Your task to perform on an android device: find which apps use the phone's location Image 0: 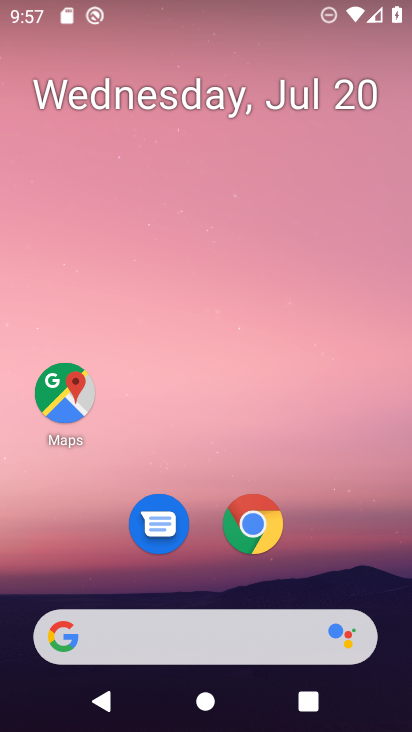
Step 0: drag from (207, 638) to (333, 59)
Your task to perform on an android device: find which apps use the phone's location Image 1: 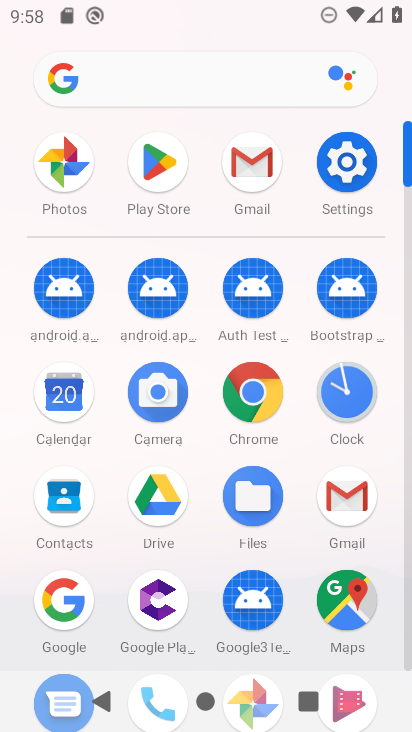
Step 1: click (331, 172)
Your task to perform on an android device: find which apps use the phone's location Image 2: 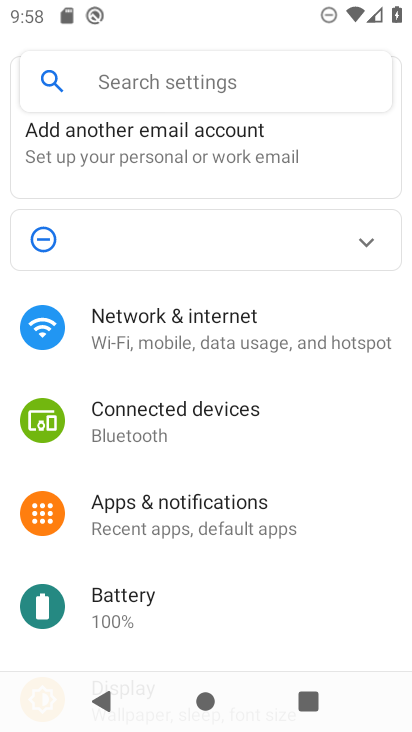
Step 2: drag from (259, 476) to (338, 154)
Your task to perform on an android device: find which apps use the phone's location Image 3: 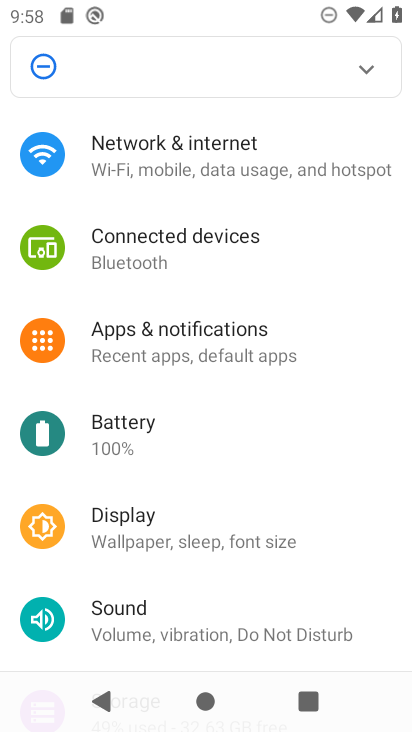
Step 3: drag from (268, 544) to (305, 186)
Your task to perform on an android device: find which apps use the phone's location Image 4: 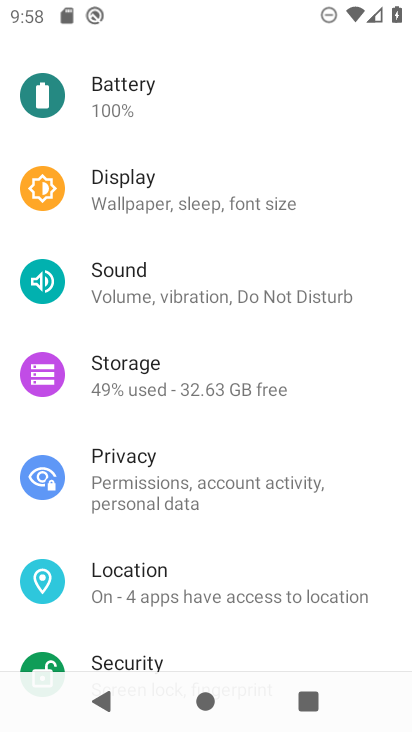
Step 4: click (183, 588)
Your task to perform on an android device: find which apps use the phone's location Image 5: 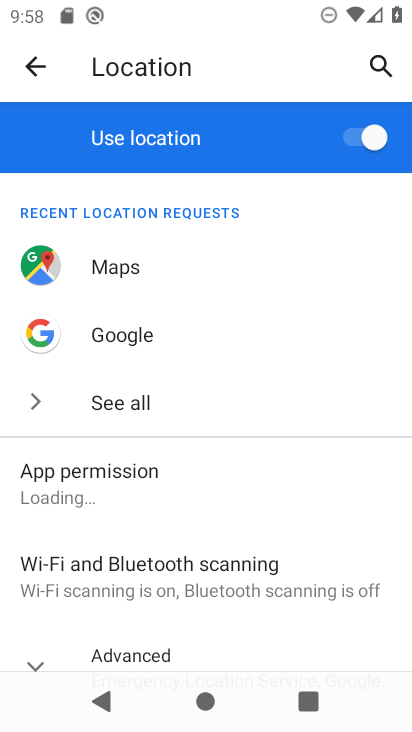
Step 5: click (103, 486)
Your task to perform on an android device: find which apps use the phone's location Image 6: 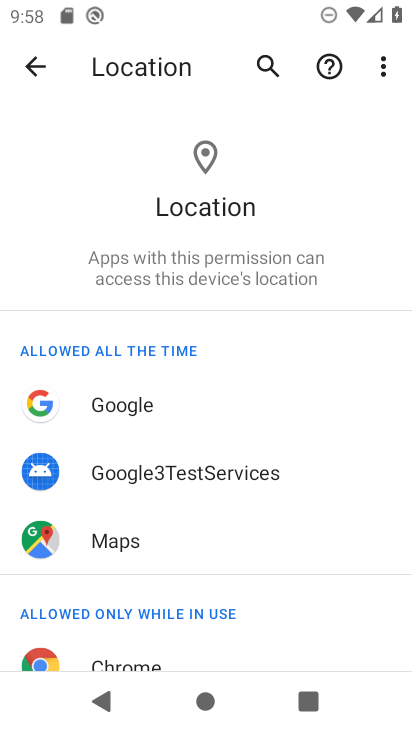
Step 6: drag from (235, 603) to (317, 176)
Your task to perform on an android device: find which apps use the phone's location Image 7: 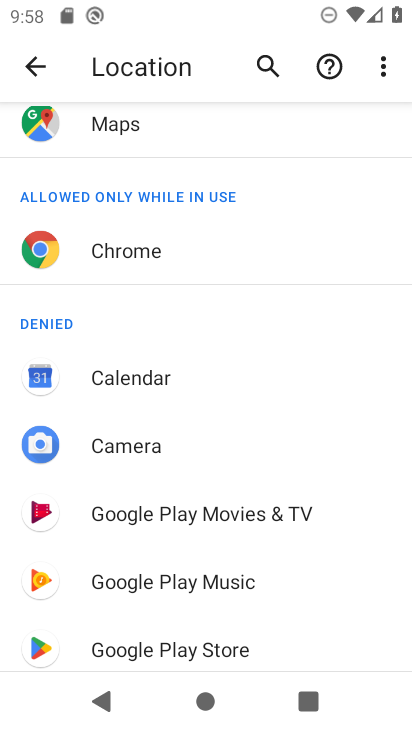
Step 7: drag from (255, 631) to (354, 277)
Your task to perform on an android device: find which apps use the phone's location Image 8: 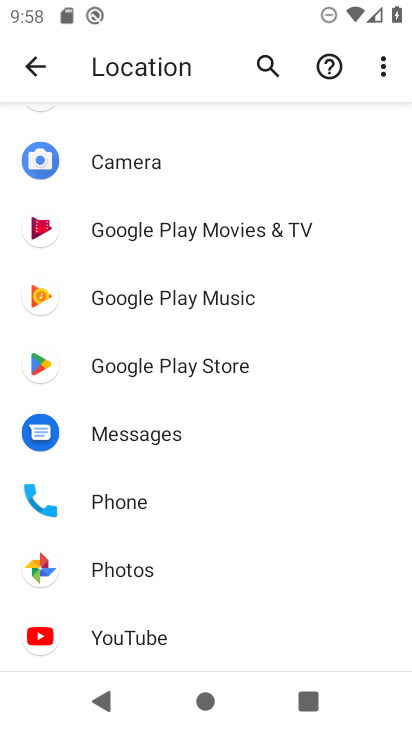
Step 8: click (152, 576)
Your task to perform on an android device: find which apps use the phone's location Image 9: 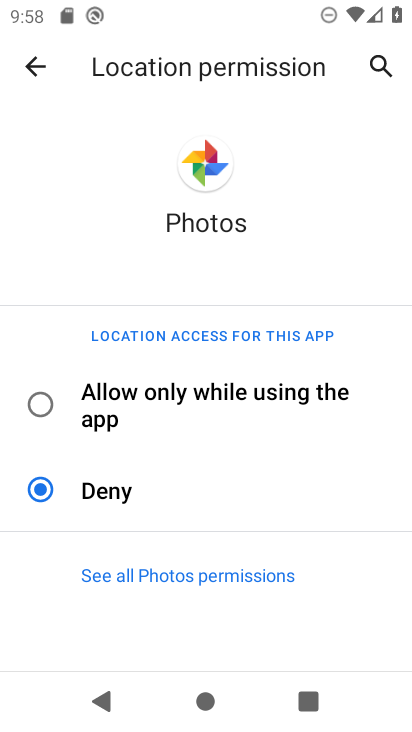
Step 9: click (32, 66)
Your task to perform on an android device: find which apps use the phone's location Image 10: 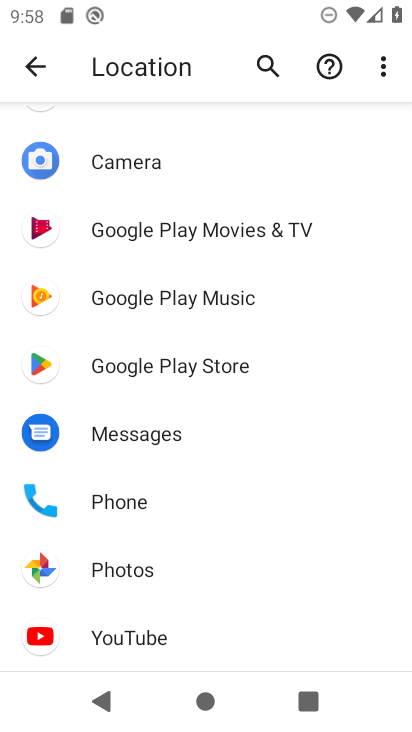
Step 10: click (126, 505)
Your task to perform on an android device: find which apps use the phone's location Image 11: 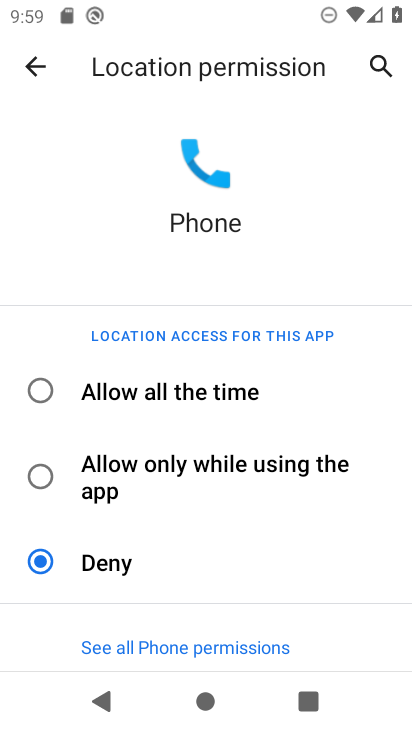
Step 11: task complete